Your task to perform on an android device: Go to Google maps Image 0: 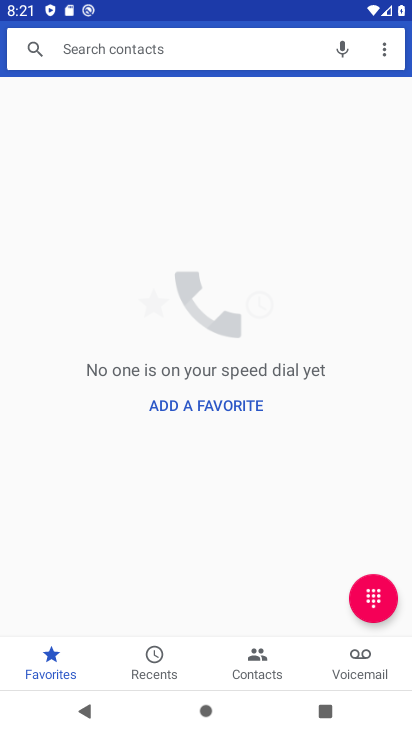
Step 0: press home button
Your task to perform on an android device: Go to Google maps Image 1: 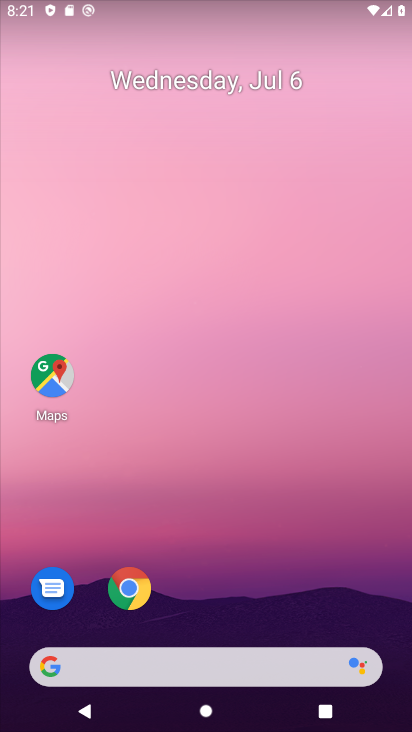
Step 1: drag from (280, 605) to (186, 54)
Your task to perform on an android device: Go to Google maps Image 2: 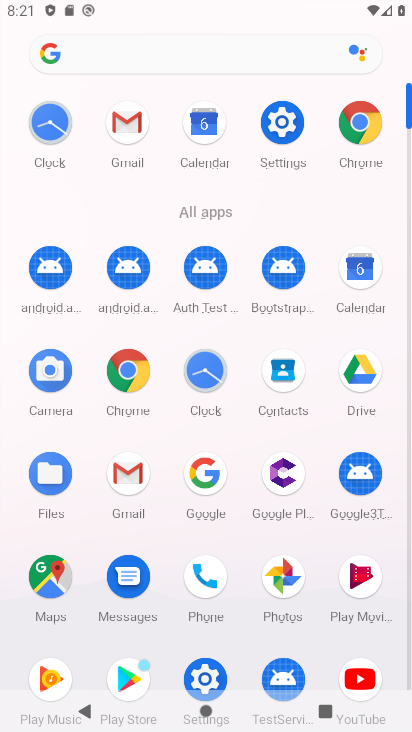
Step 2: click (64, 573)
Your task to perform on an android device: Go to Google maps Image 3: 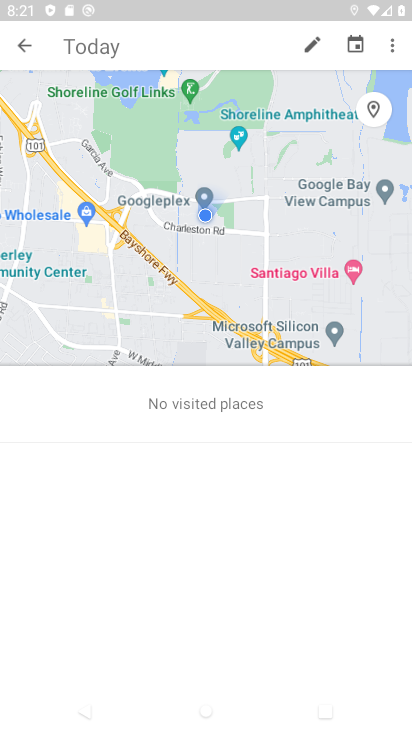
Step 3: task complete